Your task to perform on an android device: Clear all items from cart on amazon. Image 0: 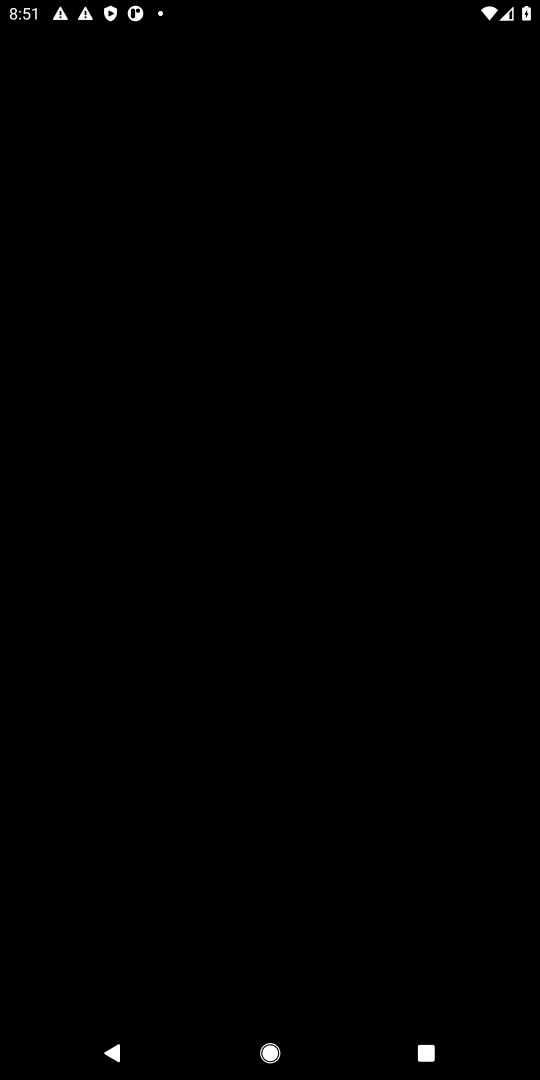
Step 0: press home button
Your task to perform on an android device: Clear all items from cart on amazon. Image 1: 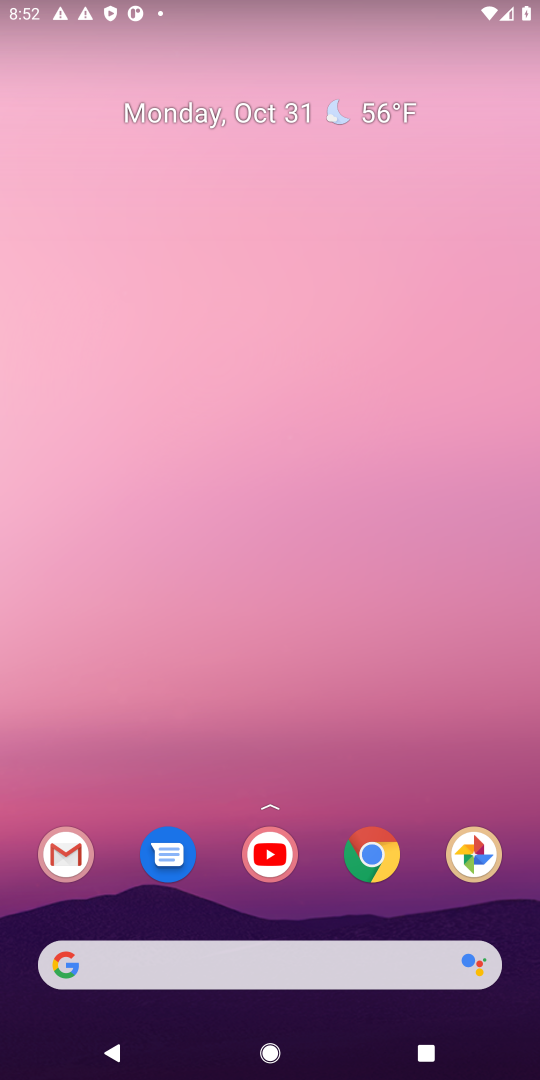
Step 1: click (277, 963)
Your task to perform on an android device: Clear all items from cart on amazon. Image 2: 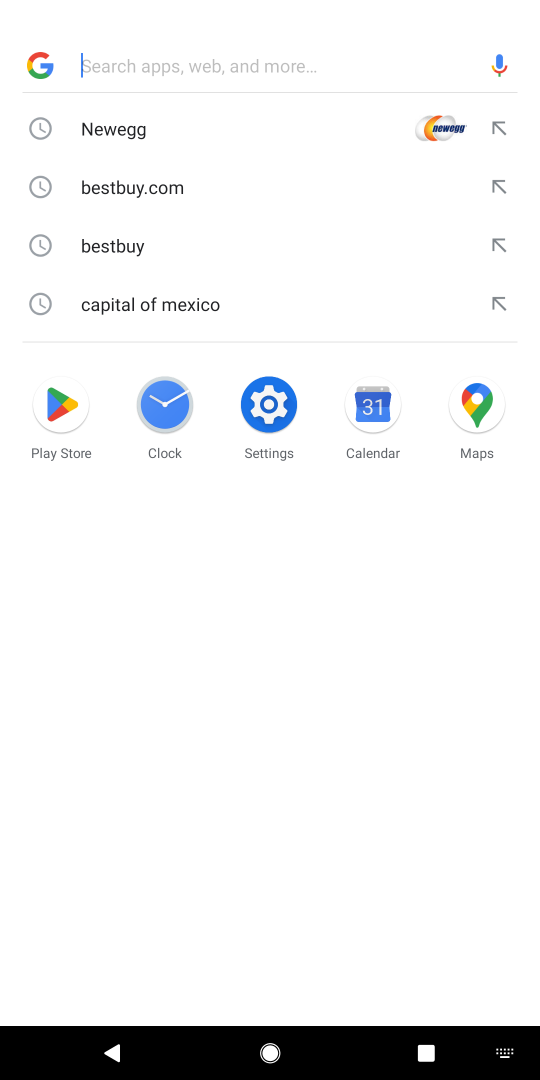
Step 2: type "amazon"
Your task to perform on an android device: Clear all items from cart on amazon. Image 3: 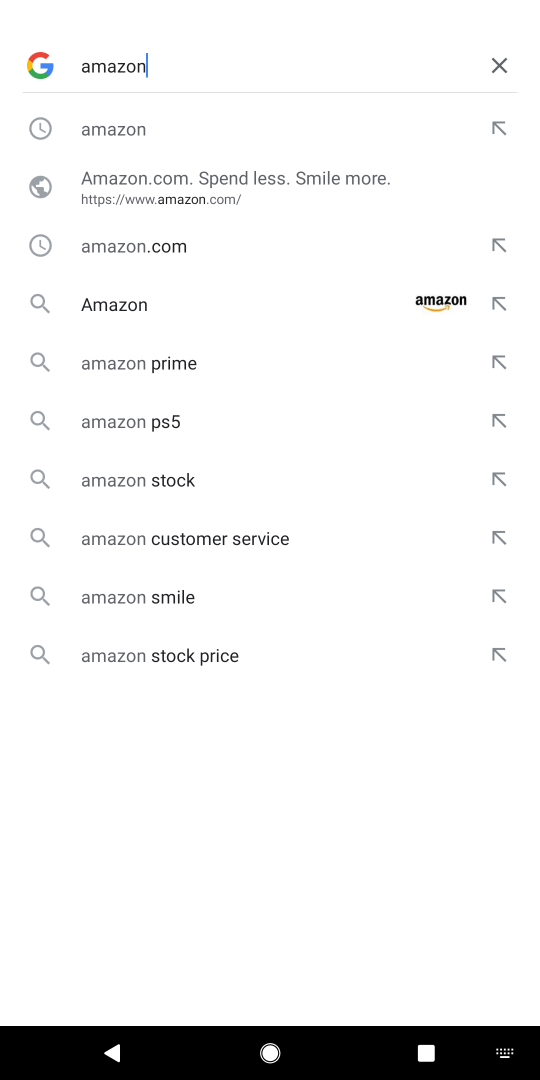
Step 3: click (168, 135)
Your task to perform on an android device: Clear all items from cart on amazon. Image 4: 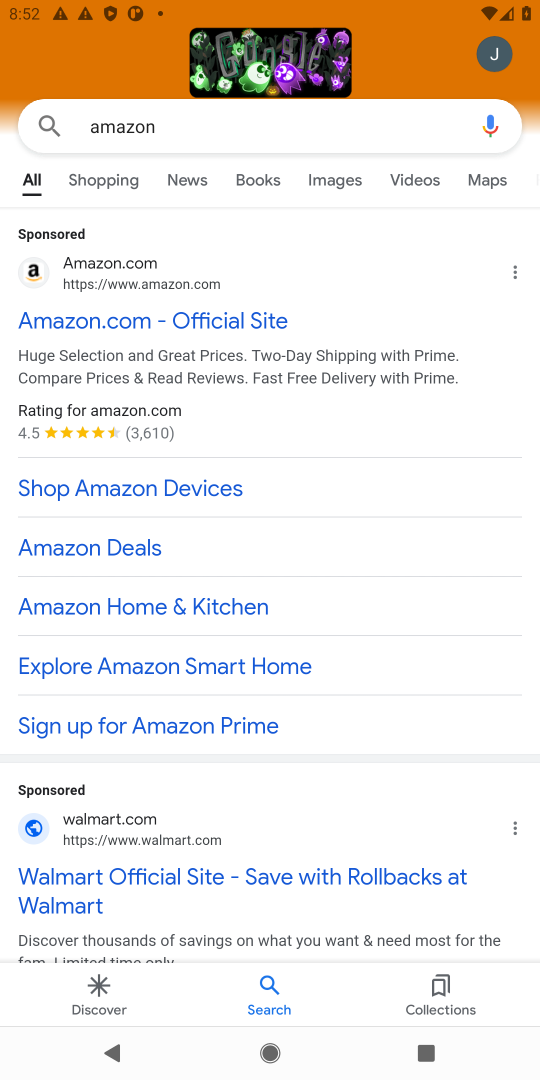
Step 4: click (159, 334)
Your task to perform on an android device: Clear all items from cart on amazon. Image 5: 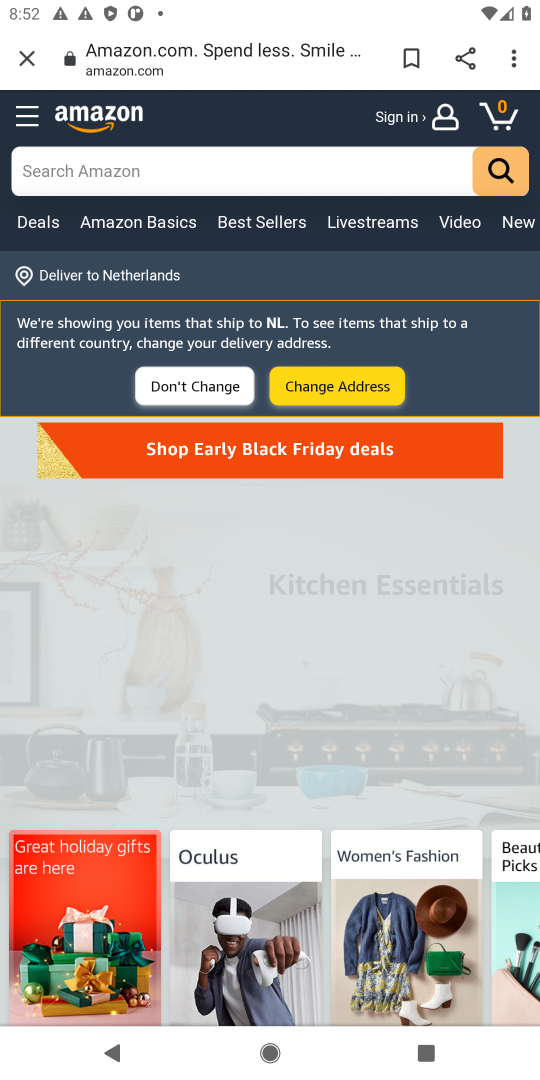
Step 5: task complete